Your task to perform on an android device: move an email to a new category in the gmail app Image 0: 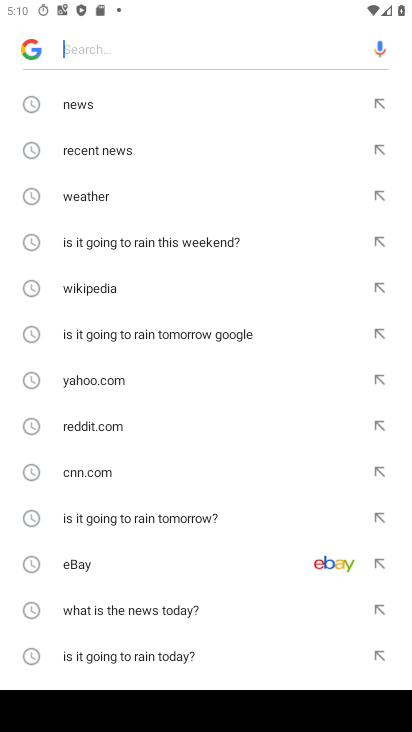
Step 0: press home button
Your task to perform on an android device: move an email to a new category in the gmail app Image 1: 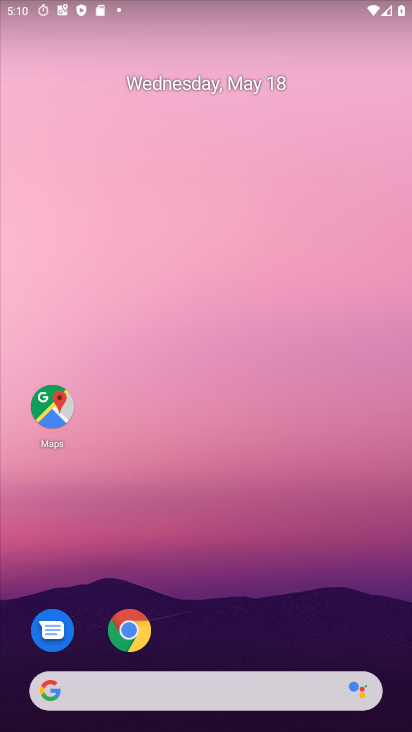
Step 1: drag from (211, 669) to (211, 278)
Your task to perform on an android device: move an email to a new category in the gmail app Image 2: 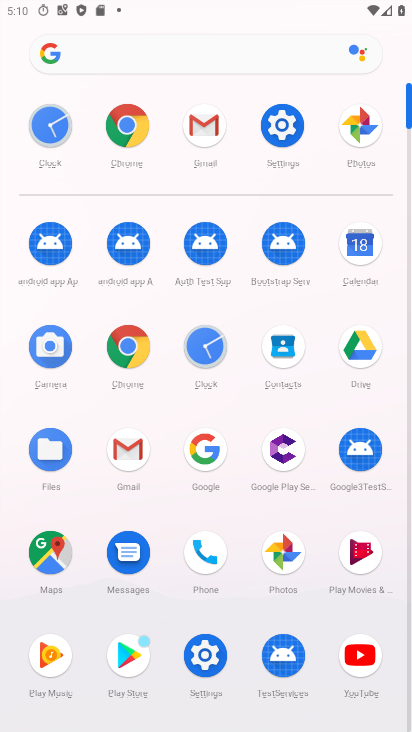
Step 2: click (209, 134)
Your task to perform on an android device: move an email to a new category in the gmail app Image 3: 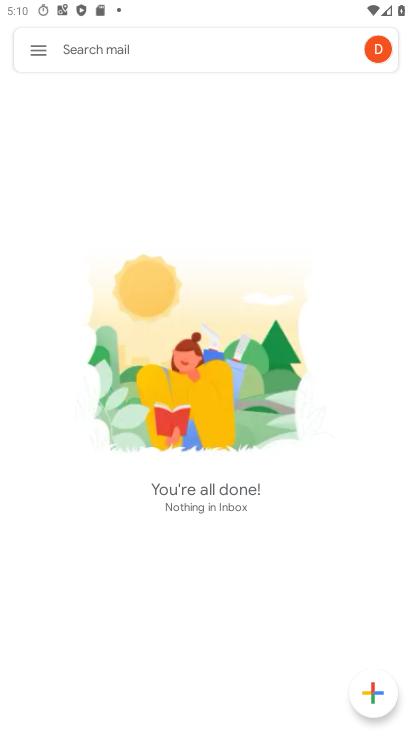
Step 3: task complete